Your task to perform on an android device: star an email in the gmail app Image 0: 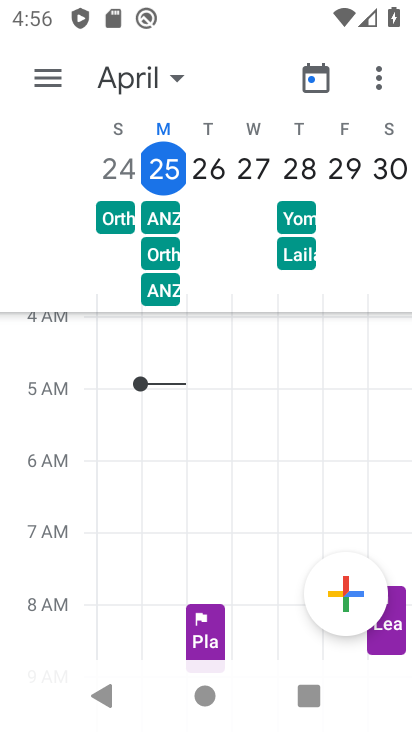
Step 0: press home button
Your task to perform on an android device: star an email in the gmail app Image 1: 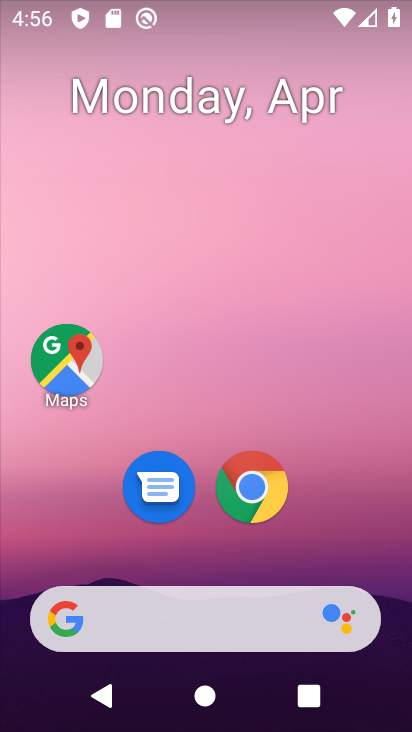
Step 1: drag from (359, 545) to (193, 6)
Your task to perform on an android device: star an email in the gmail app Image 2: 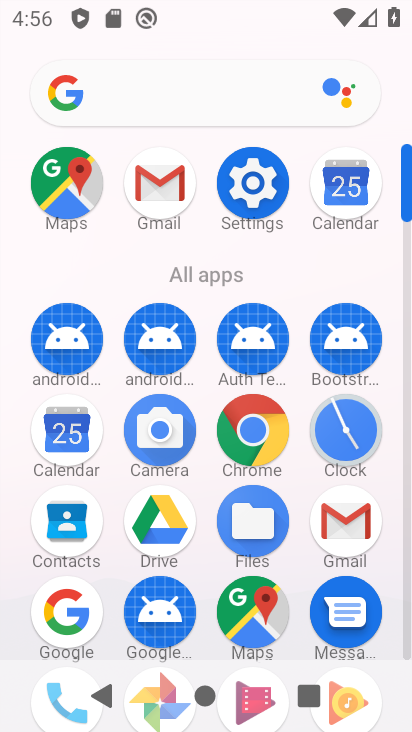
Step 2: click (157, 205)
Your task to perform on an android device: star an email in the gmail app Image 3: 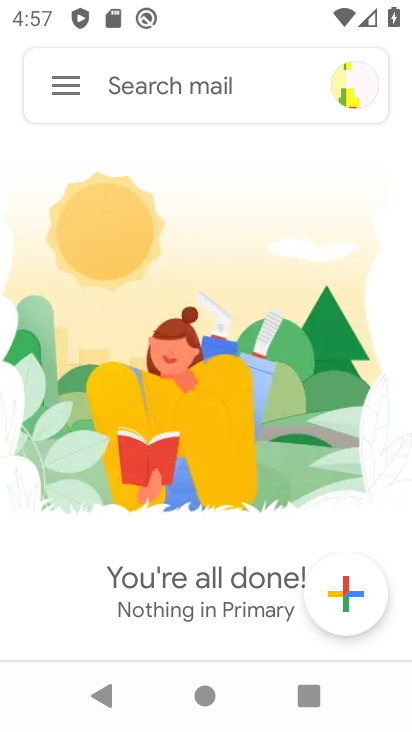
Step 3: click (66, 83)
Your task to perform on an android device: star an email in the gmail app Image 4: 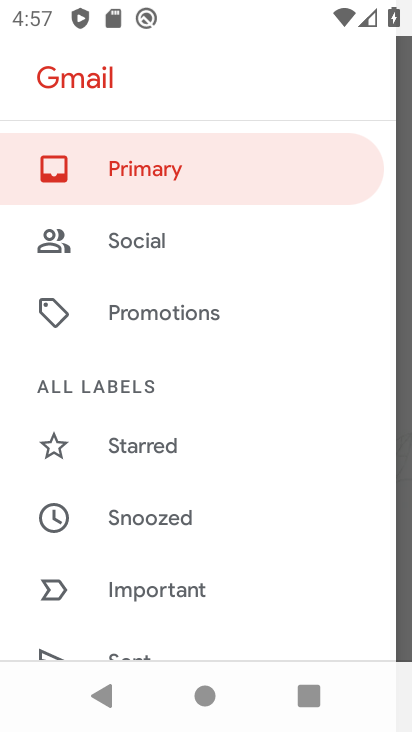
Step 4: drag from (231, 582) to (253, 208)
Your task to perform on an android device: star an email in the gmail app Image 5: 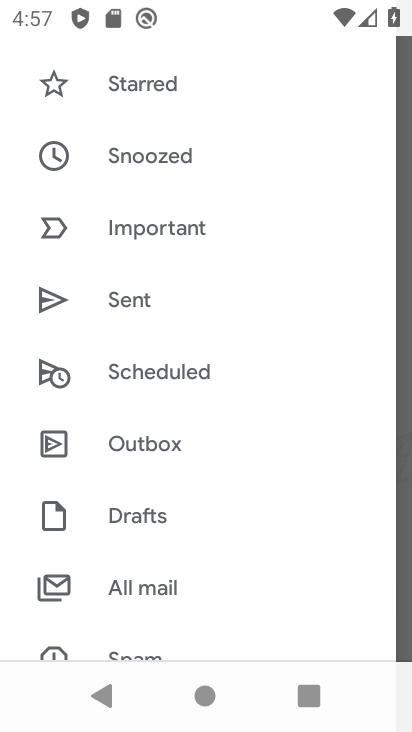
Step 5: click (252, 604)
Your task to perform on an android device: star an email in the gmail app Image 6: 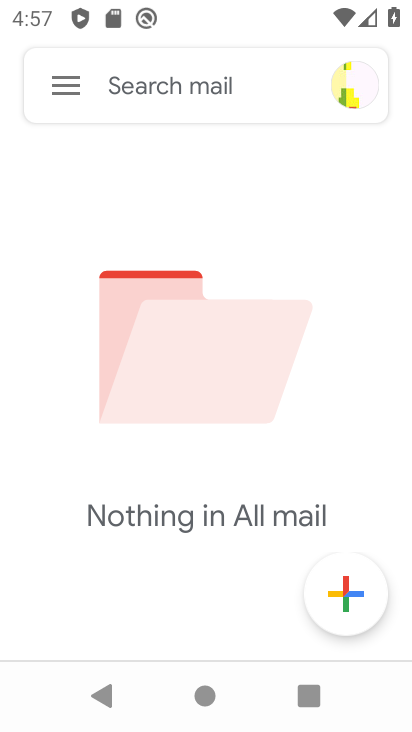
Step 6: task complete